Your task to perform on an android device: Open ESPN.com Image 0: 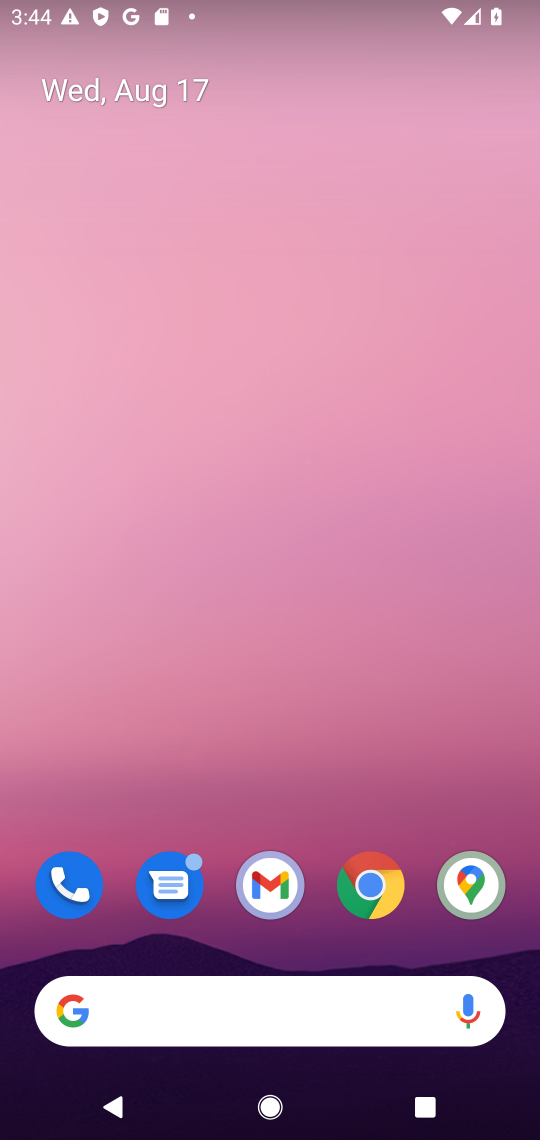
Step 0: click (374, 886)
Your task to perform on an android device: Open ESPN.com Image 1: 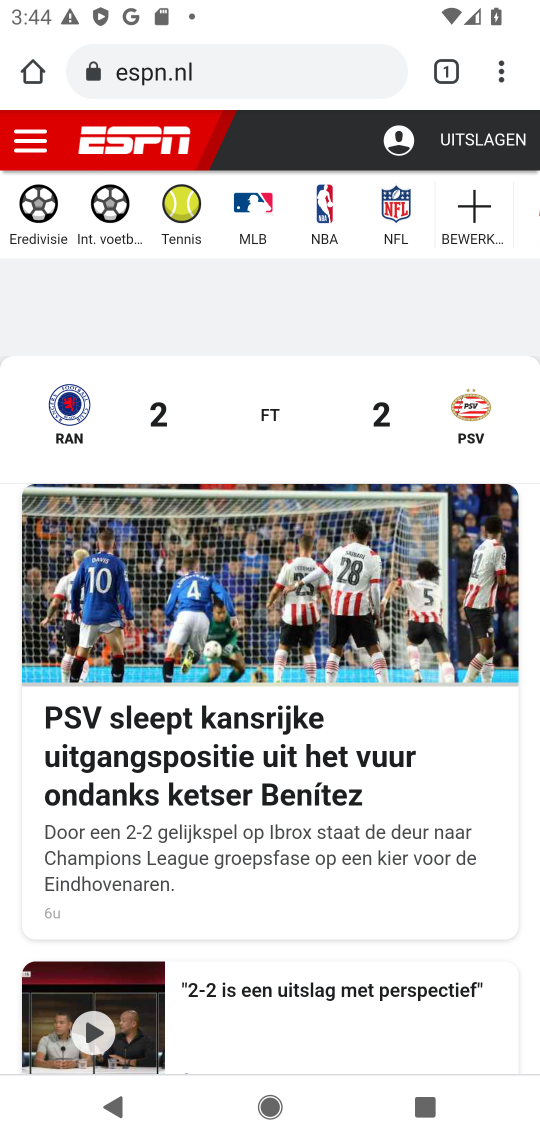
Step 1: click (308, 64)
Your task to perform on an android device: Open ESPN.com Image 2: 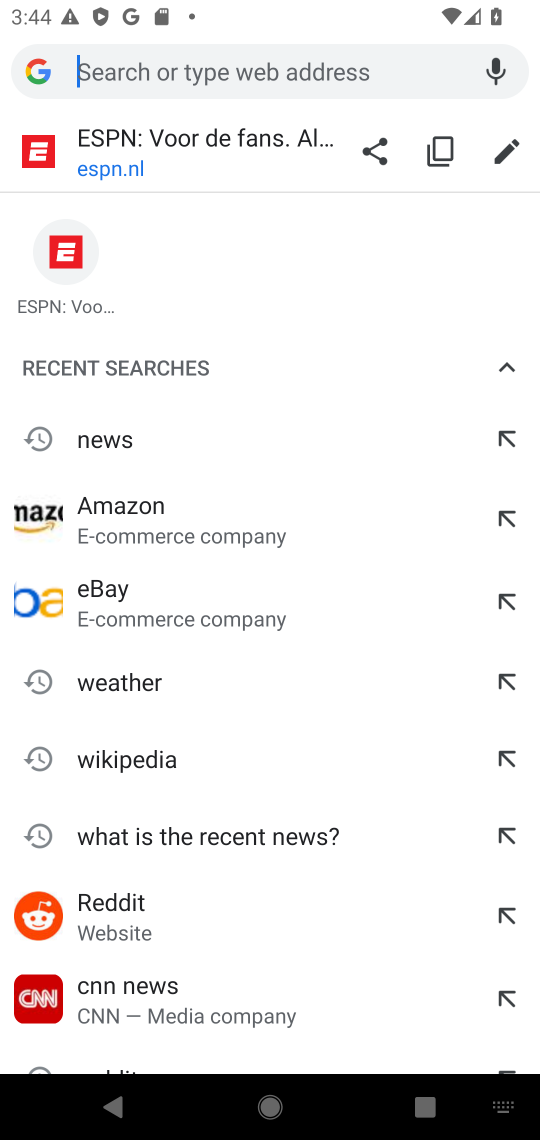
Step 2: click (83, 302)
Your task to perform on an android device: Open ESPN.com Image 3: 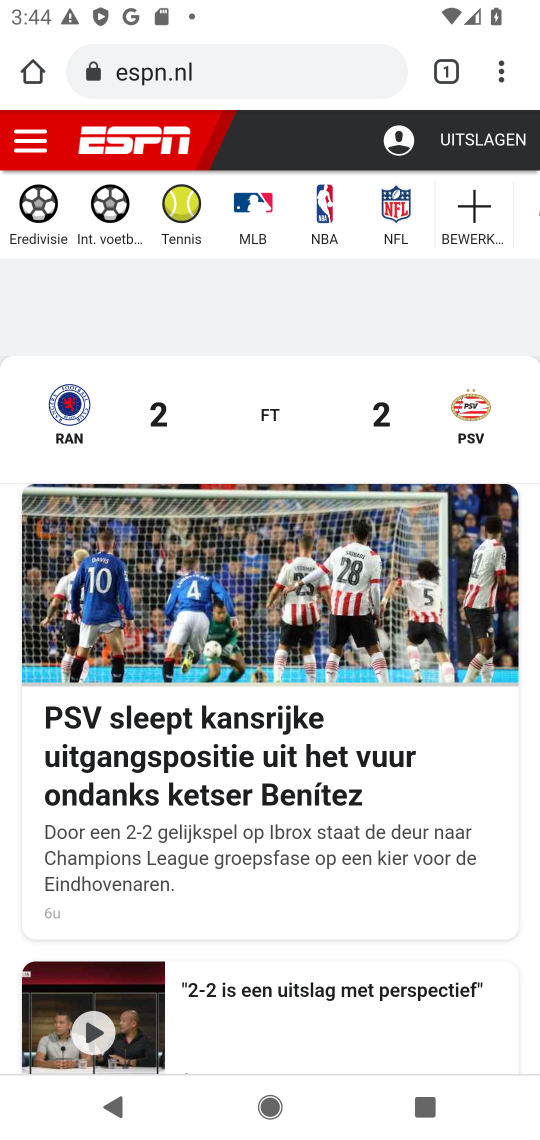
Step 3: task complete